Your task to perform on an android device: empty trash in the gmail app Image 0: 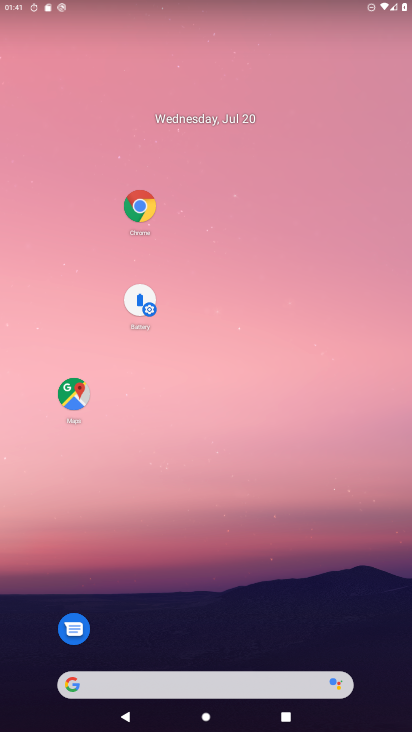
Step 0: click (224, 33)
Your task to perform on an android device: empty trash in the gmail app Image 1: 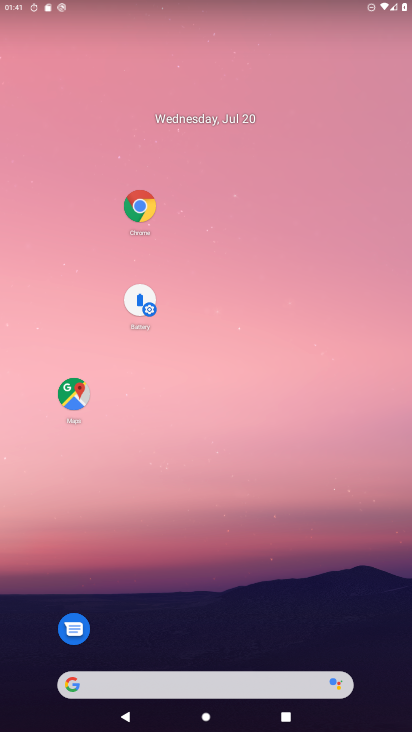
Step 1: drag from (155, 628) to (283, 99)
Your task to perform on an android device: empty trash in the gmail app Image 2: 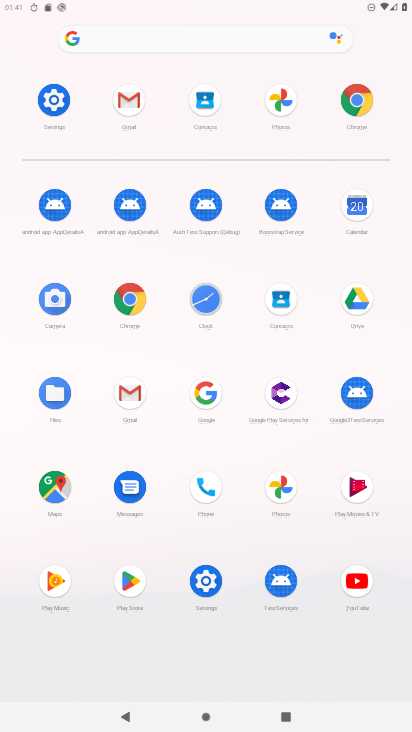
Step 2: click (120, 384)
Your task to perform on an android device: empty trash in the gmail app Image 3: 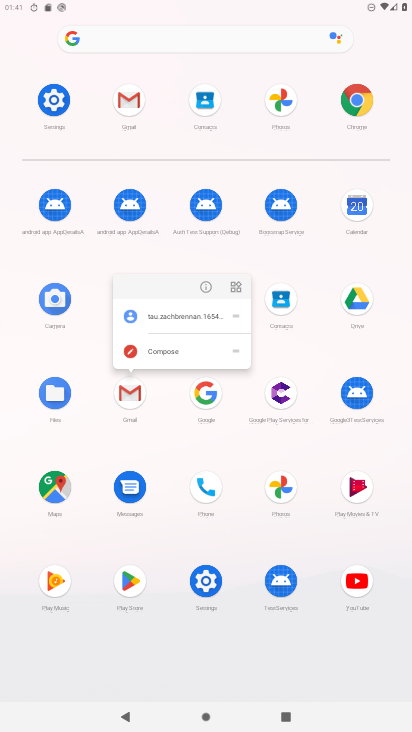
Step 3: click (210, 276)
Your task to perform on an android device: empty trash in the gmail app Image 4: 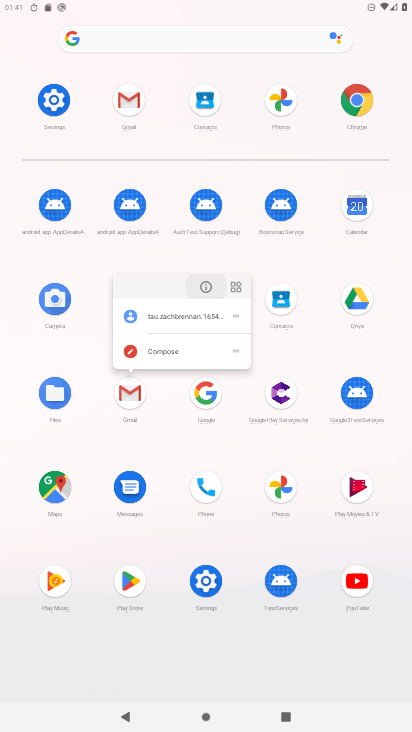
Step 4: click (206, 282)
Your task to perform on an android device: empty trash in the gmail app Image 5: 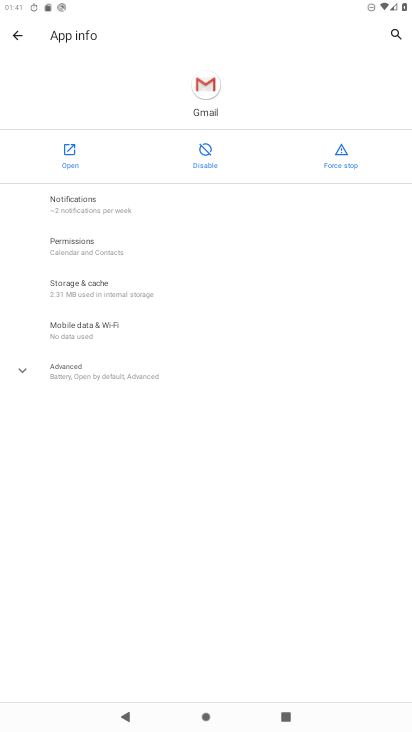
Step 5: click (81, 165)
Your task to perform on an android device: empty trash in the gmail app Image 6: 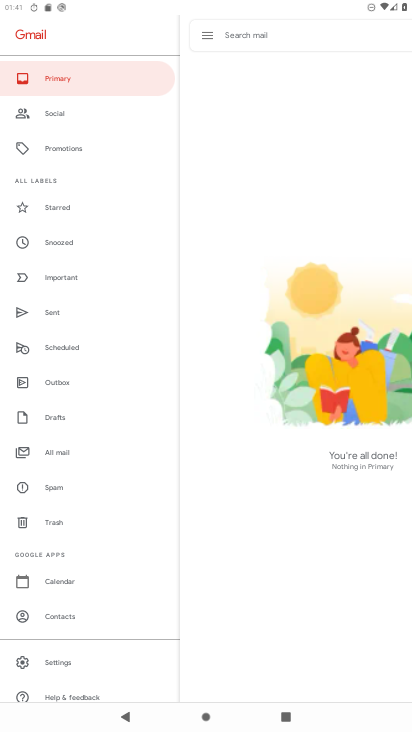
Step 6: click (74, 508)
Your task to perform on an android device: empty trash in the gmail app Image 7: 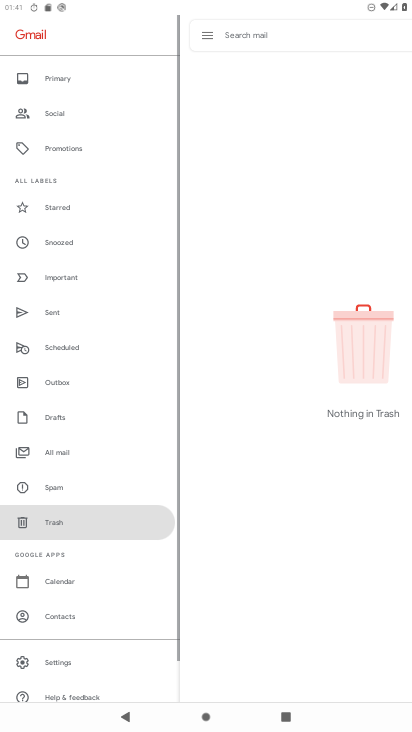
Step 7: drag from (187, 532) to (207, 100)
Your task to perform on an android device: empty trash in the gmail app Image 8: 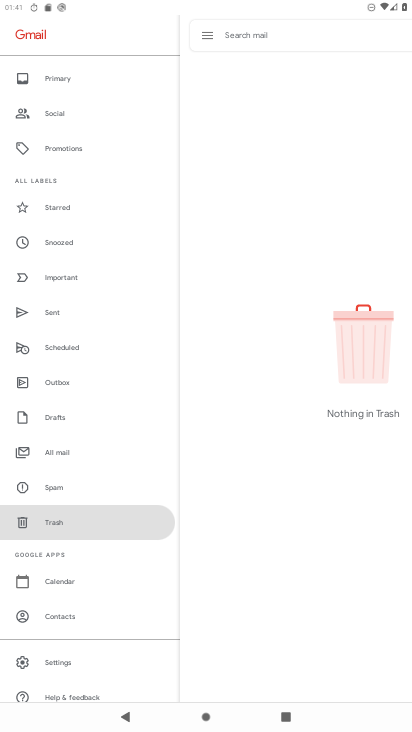
Step 8: click (59, 526)
Your task to perform on an android device: empty trash in the gmail app Image 9: 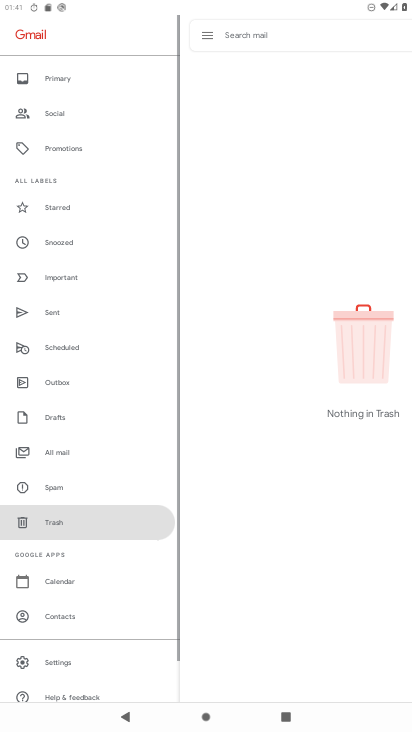
Step 9: task complete